Your task to perform on an android device: Show me popular games on the Play Store Image 0: 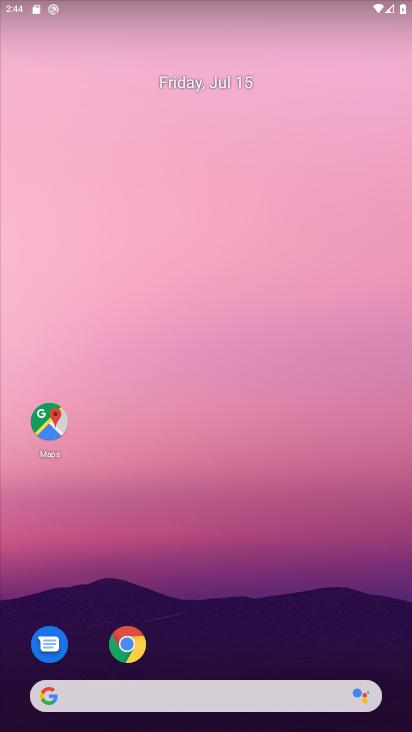
Step 0: drag from (388, 658) to (265, 107)
Your task to perform on an android device: Show me popular games on the Play Store Image 1: 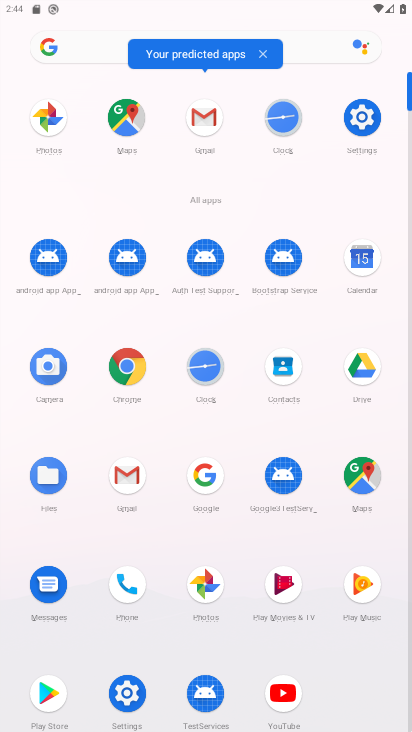
Step 1: click (59, 691)
Your task to perform on an android device: Show me popular games on the Play Store Image 2: 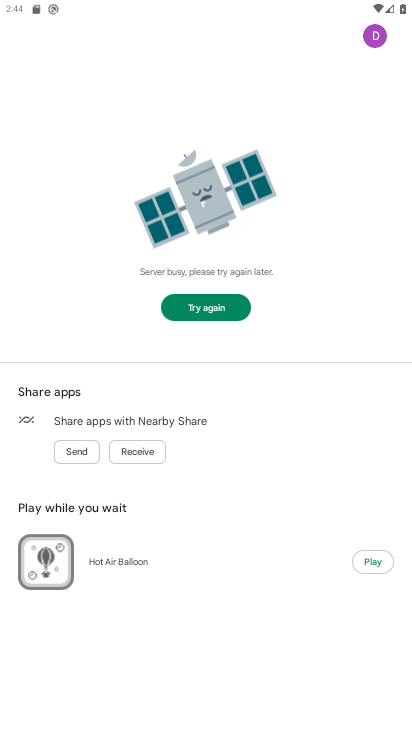
Step 2: task complete